Your task to perform on an android device: manage bookmarks in the chrome app Image 0: 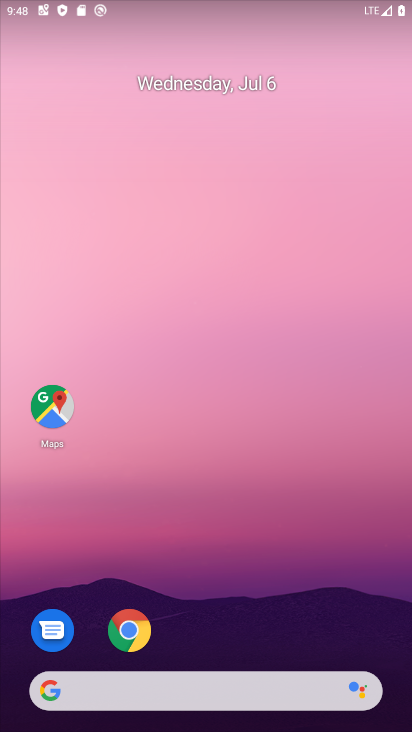
Step 0: click (129, 628)
Your task to perform on an android device: manage bookmarks in the chrome app Image 1: 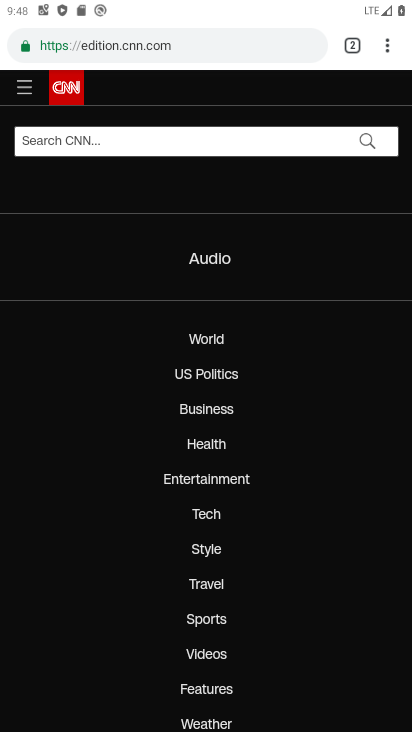
Step 1: click (385, 50)
Your task to perform on an android device: manage bookmarks in the chrome app Image 2: 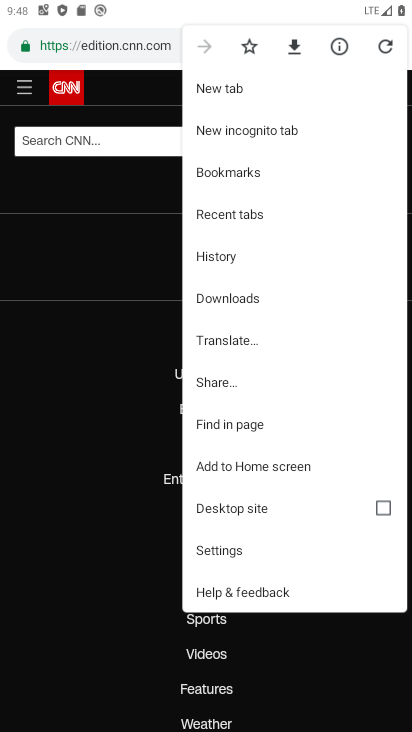
Step 2: click (215, 172)
Your task to perform on an android device: manage bookmarks in the chrome app Image 3: 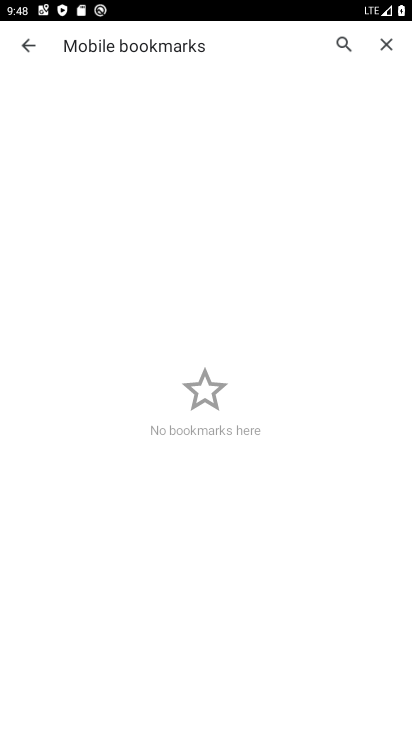
Step 3: task complete